Your task to perform on an android device: Turn off the flashlight Image 0: 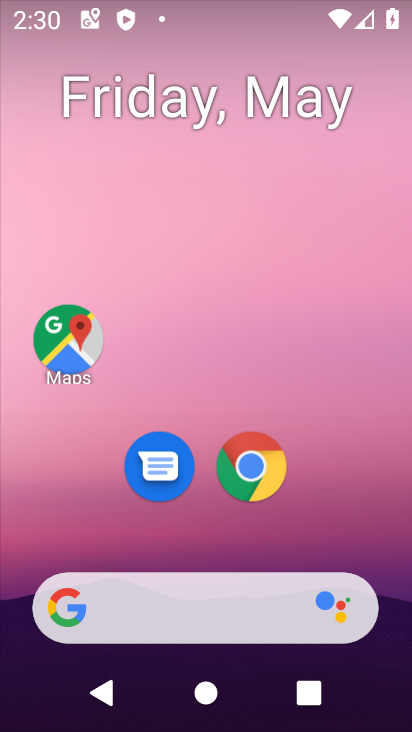
Step 0: drag from (225, 523) to (281, 138)
Your task to perform on an android device: Turn off the flashlight Image 1: 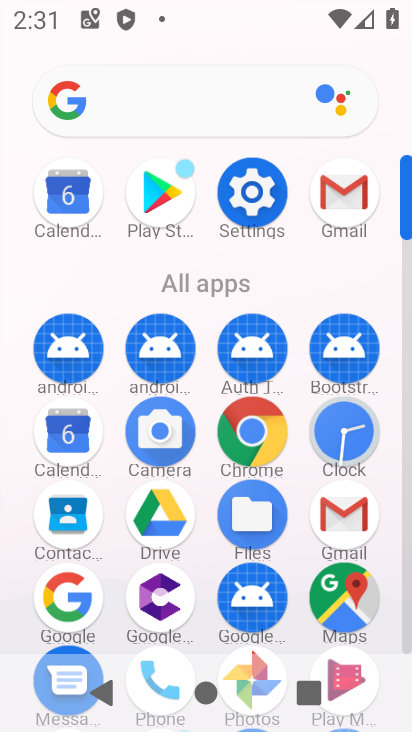
Step 1: click (251, 185)
Your task to perform on an android device: Turn off the flashlight Image 2: 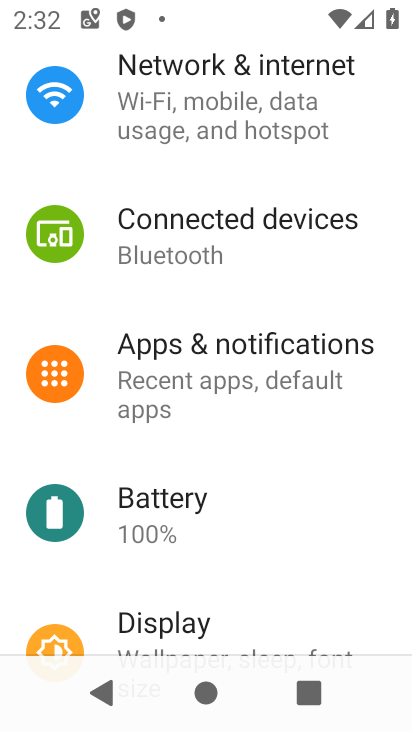
Step 2: drag from (251, 177) to (250, 673)
Your task to perform on an android device: Turn off the flashlight Image 3: 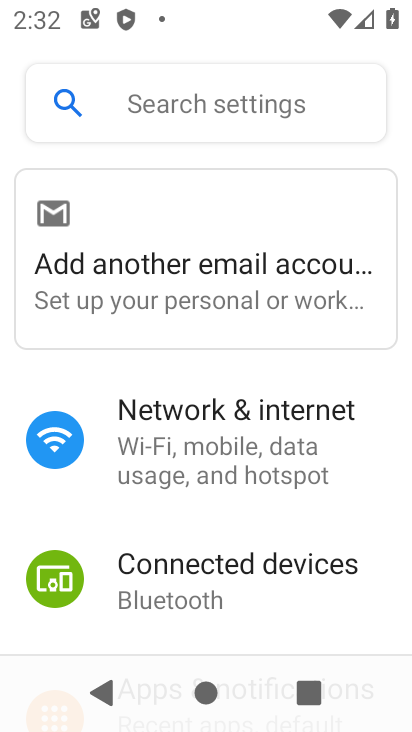
Step 3: click (237, 120)
Your task to perform on an android device: Turn off the flashlight Image 4: 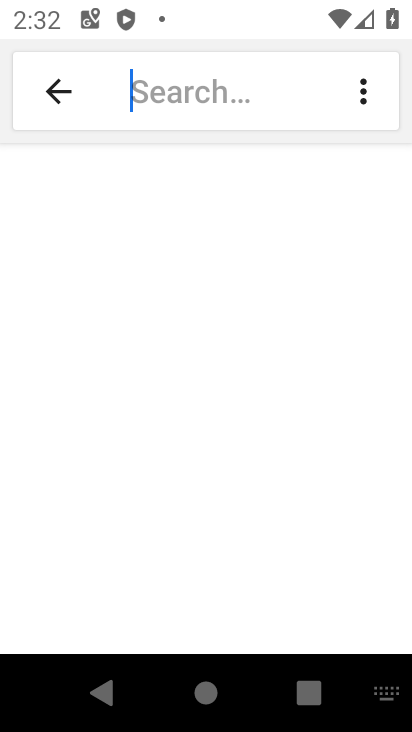
Step 4: type "flashlight"
Your task to perform on an android device: Turn off the flashlight Image 5: 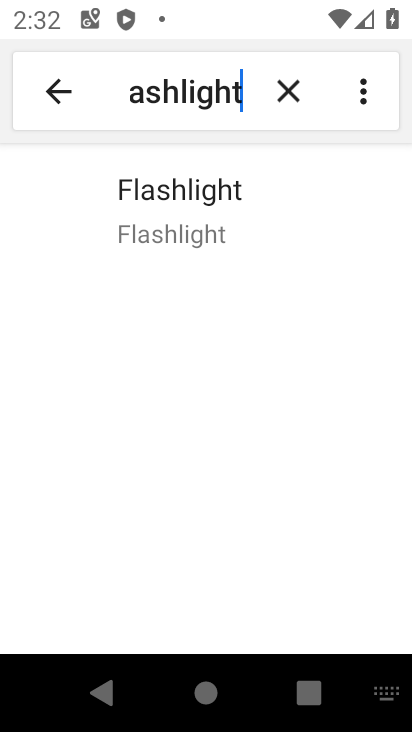
Step 5: click (180, 212)
Your task to perform on an android device: Turn off the flashlight Image 6: 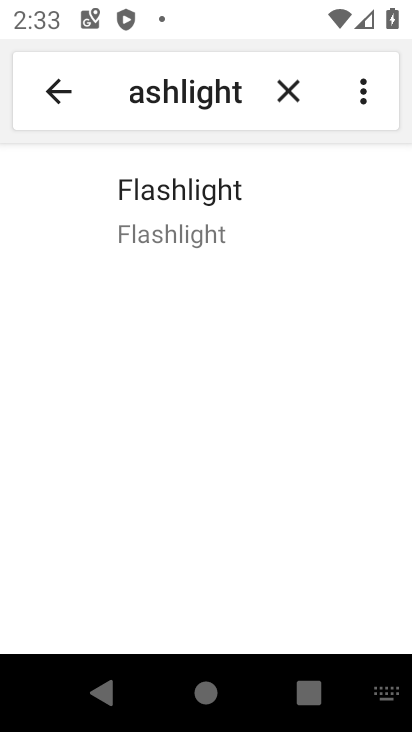
Step 6: task complete